Your task to perform on an android device: Go to CNN.com Image 0: 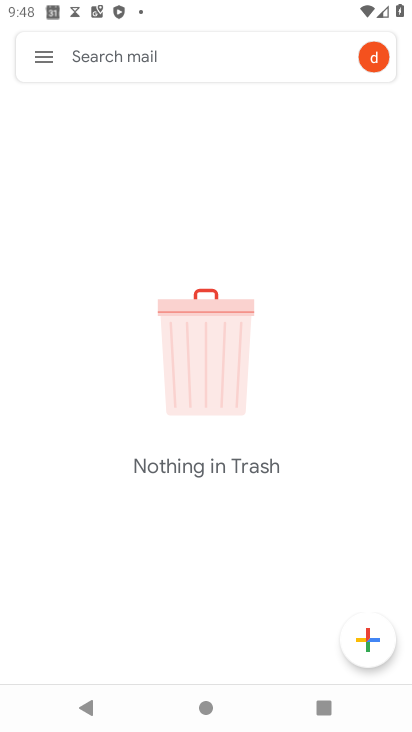
Step 0: press home button
Your task to perform on an android device: Go to CNN.com Image 1: 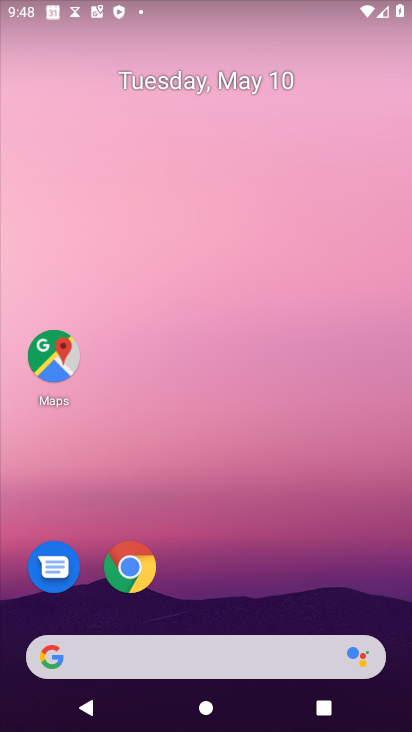
Step 1: click (134, 570)
Your task to perform on an android device: Go to CNN.com Image 2: 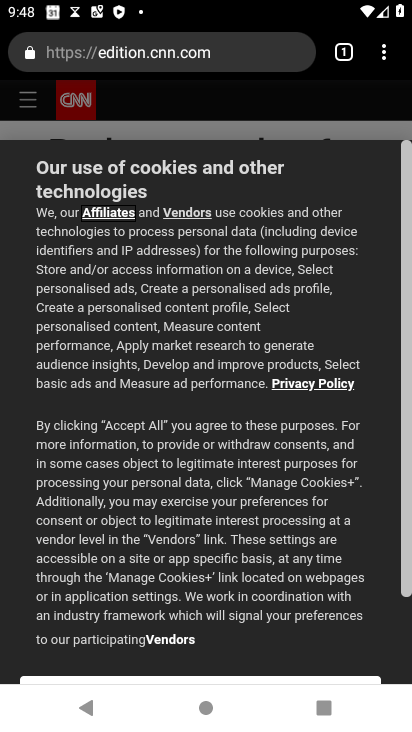
Step 2: press back button
Your task to perform on an android device: Go to CNN.com Image 3: 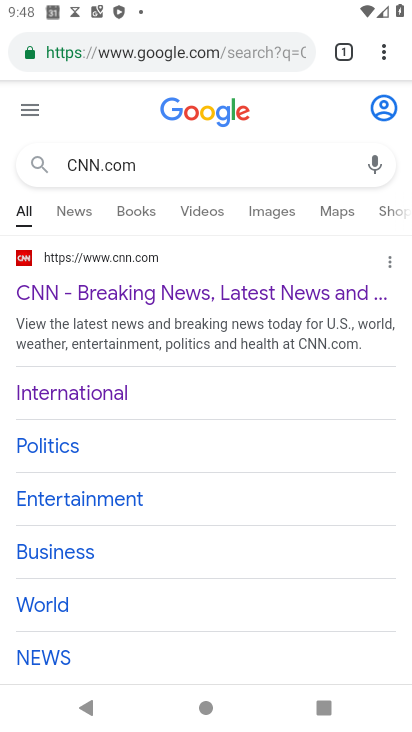
Step 3: click (85, 299)
Your task to perform on an android device: Go to CNN.com Image 4: 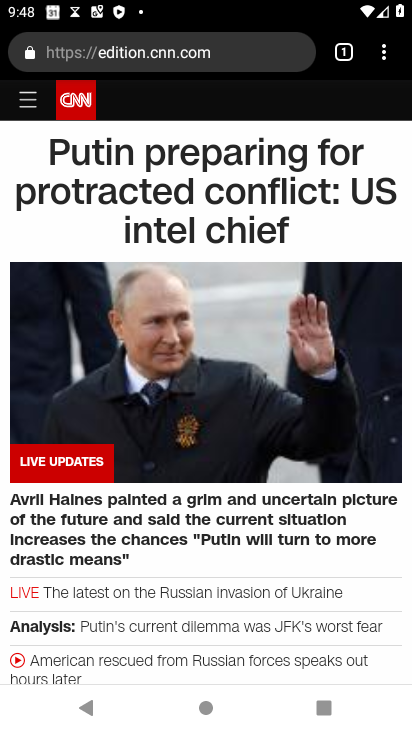
Step 4: task complete